Your task to perform on an android device: open app "DuckDuckGo Privacy Browser" (install if not already installed) Image 0: 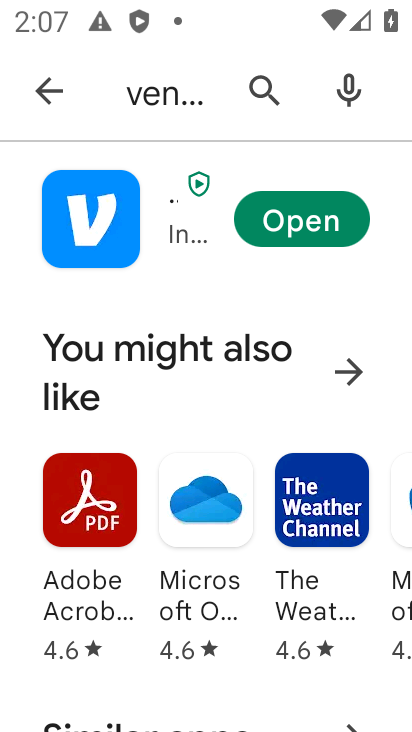
Step 0: click (252, 92)
Your task to perform on an android device: open app "DuckDuckGo Privacy Browser" (install if not already installed) Image 1: 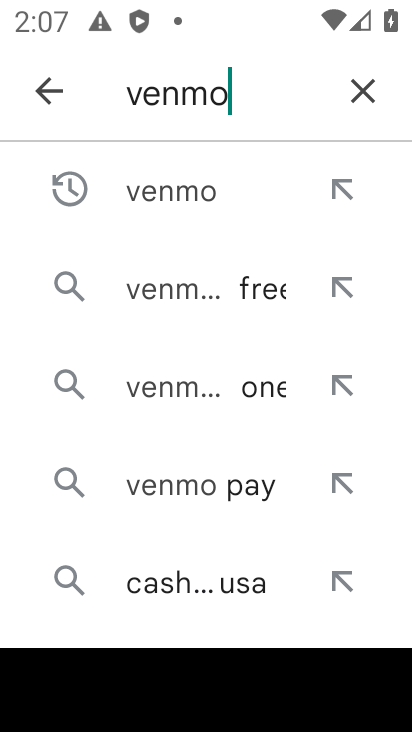
Step 1: click (374, 90)
Your task to perform on an android device: open app "DuckDuckGo Privacy Browser" (install if not already installed) Image 2: 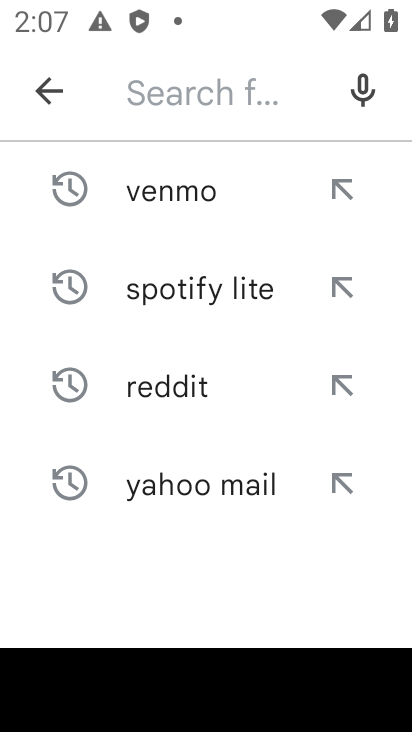
Step 2: type "DuckDuckGo Privacy Browser"
Your task to perform on an android device: open app "DuckDuckGo Privacy Browser" (install if not already installed) Image 3: 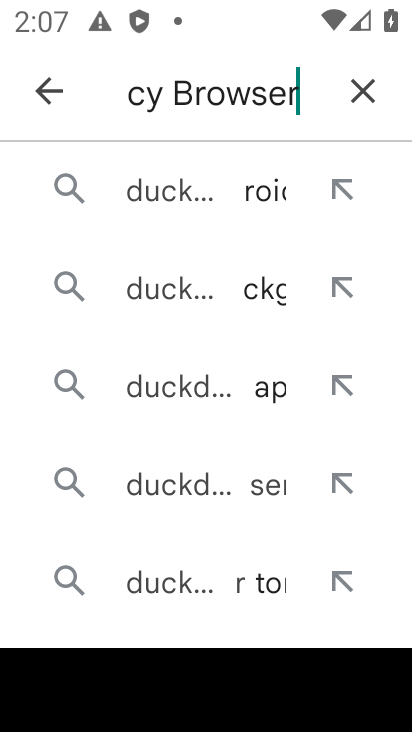
Step 3: click (173, 195)
Your task to perform on an android device: open app "DuckDuckGo Privacy Browser" (install if not already installed) Image 4: 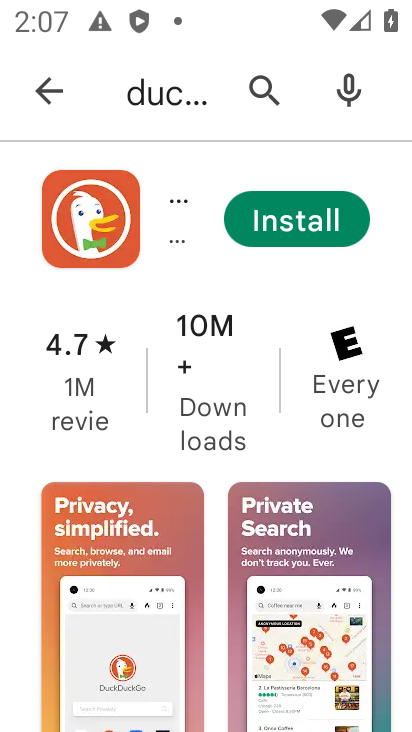
Step 4: click (286, 215)
Your task to perform on an android device: open app "DuckDuckGo Privacy Browser" (install if not already installed) Image 5: 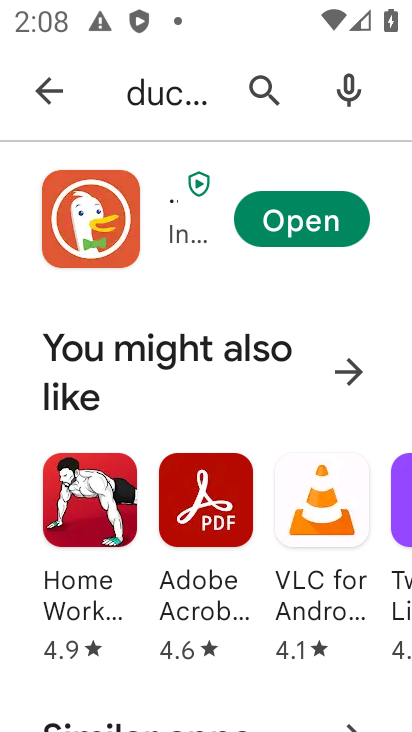
Step 5: click (324, 209)
Your task to perform on an android device: open app "DuckDuckGo Privacy Browser" (install if not already installed) Image 6: 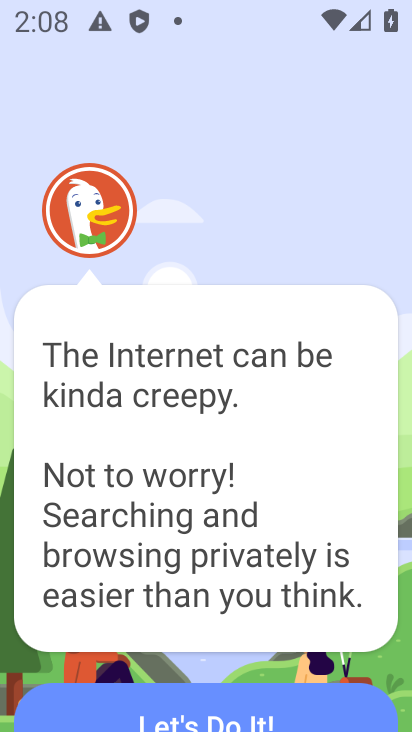
Step 6: task complete